Your task to perform on an android device: open a new tab in the chrome app Image 0: 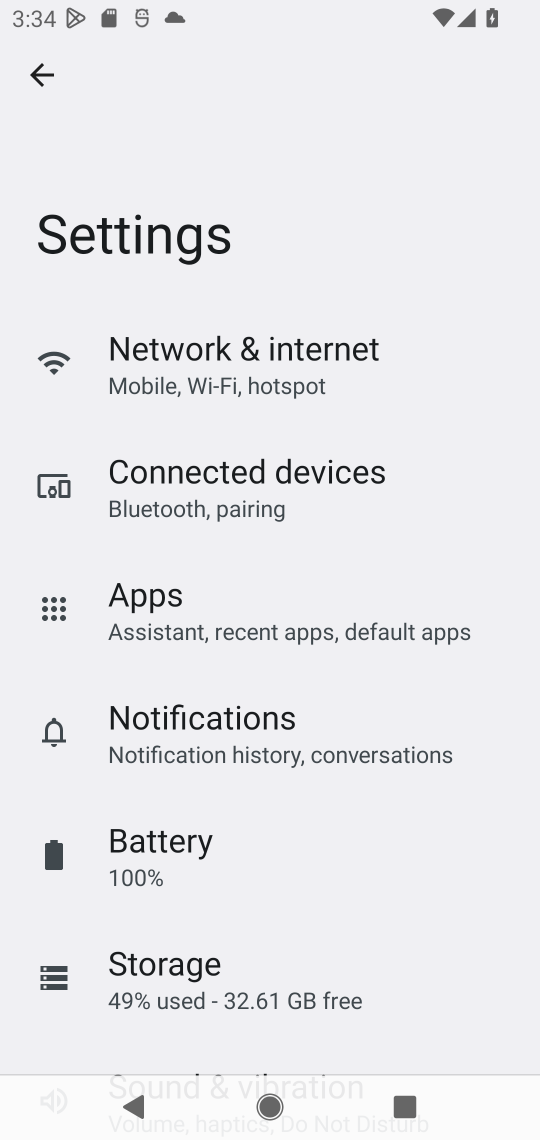
Step 0: press home button
Your task to perform on an android device: open a new tab in the chrome app Image 1: 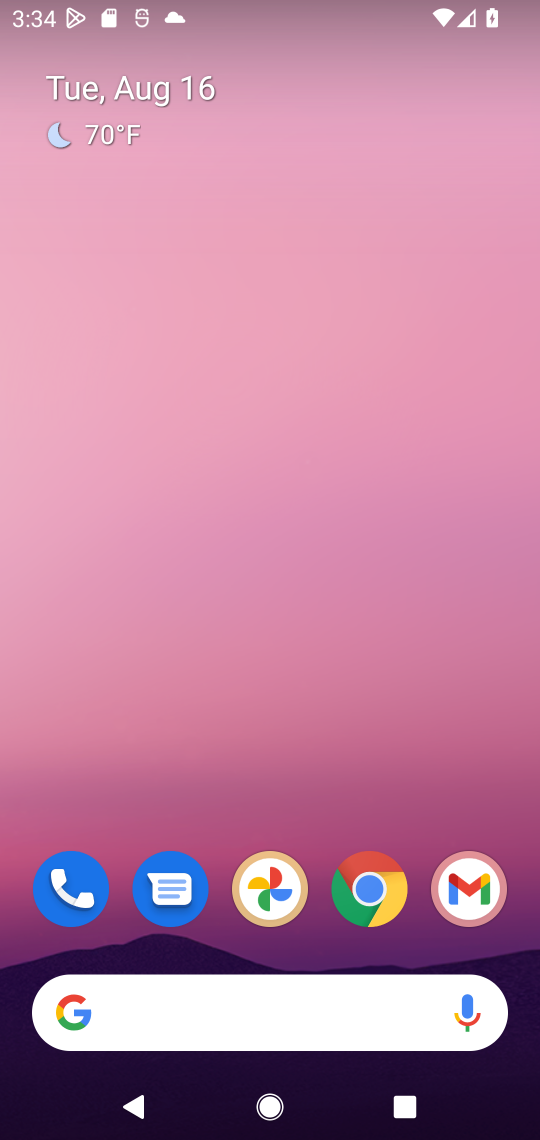
Step 1: click (361, 888)
Your task to perform on an android device: open a new tab in the chrome app Image 2: 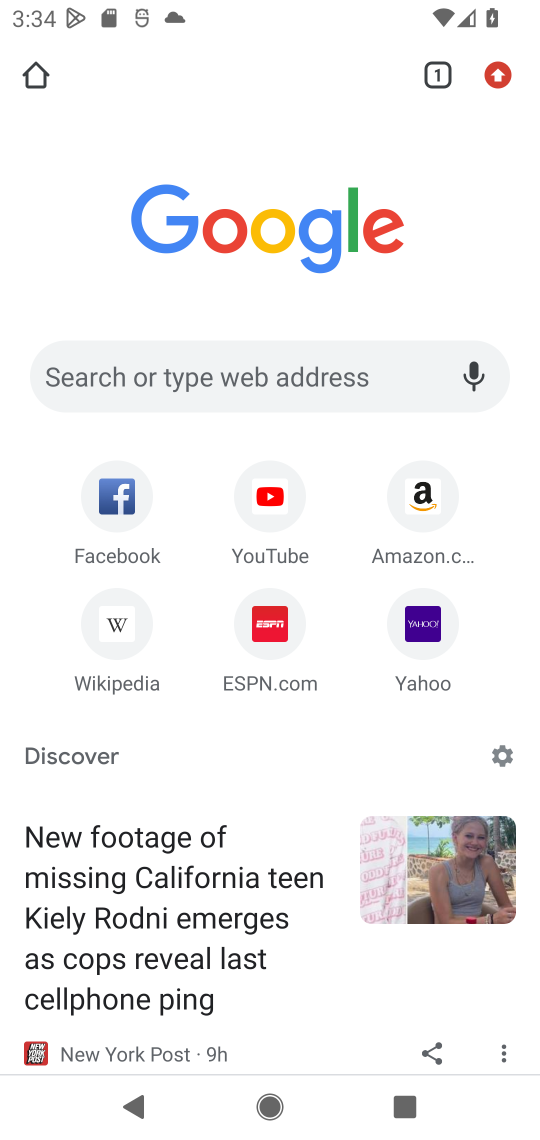
Step 2: task complete